Your task to perform on an android device: clear history in the chrome app Image 0: 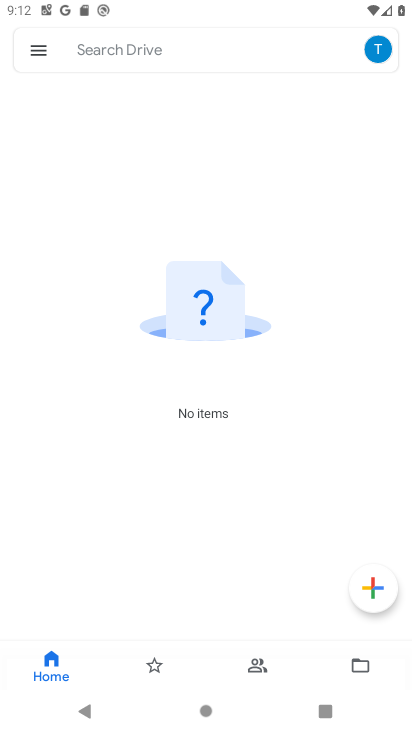
Step 0: press back button
Your task to perform on an android device: clear history in the chrome app Image 1: 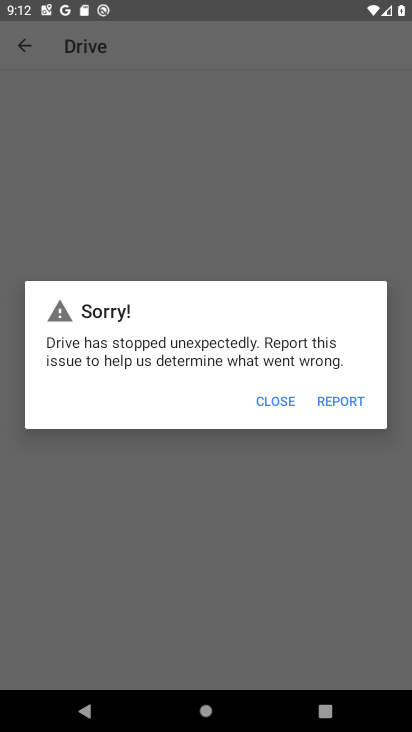
Step 1: click (266, 386)
Your task to perform on an android device: clear history in the chrome app Image 2: 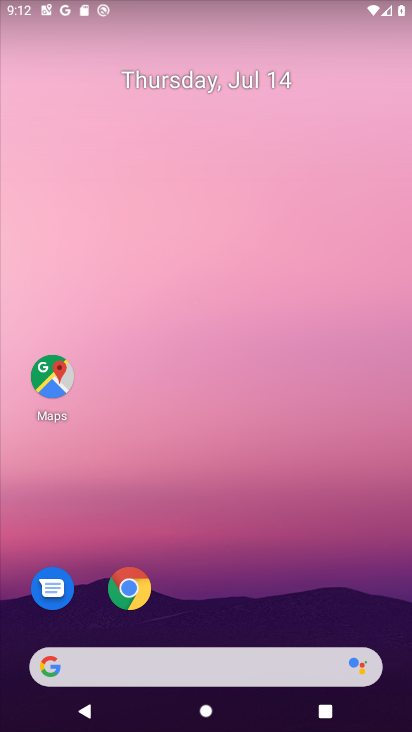
Step 2: drag from (248, 683) to (166, 34)
Your task to perform on an android device: clear history in the chrome app Image 3: 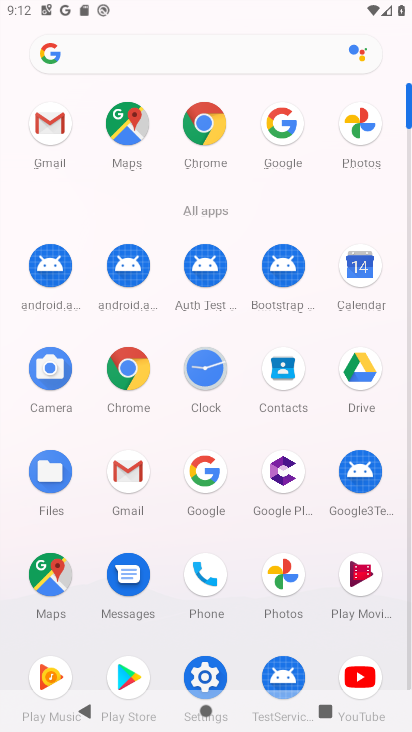
Step 3: click (206, 131)
Your task to perform on an android device: clear history in the chrome app Image 4: 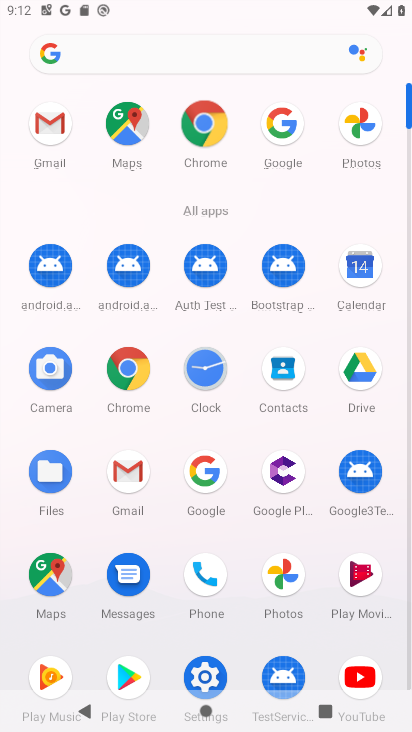
Step 4: click (206, 131)
Your task to perform on an android device: clear history in the chrome app Image 5: 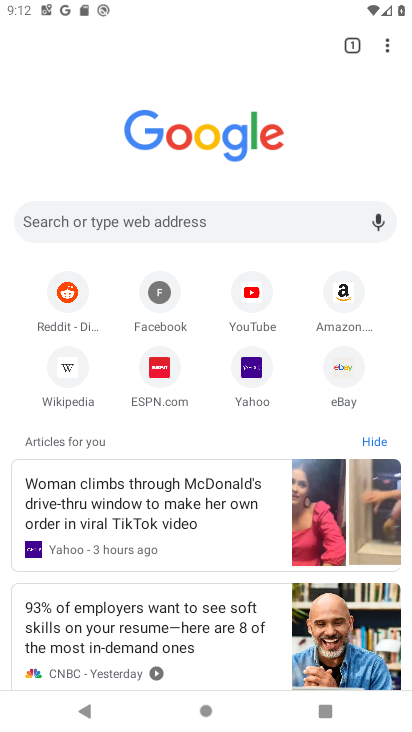
Step 5: drag from (390, 42) to (220, 309)
Your task to perform on an android device: clear history in the chrome app Image 6: 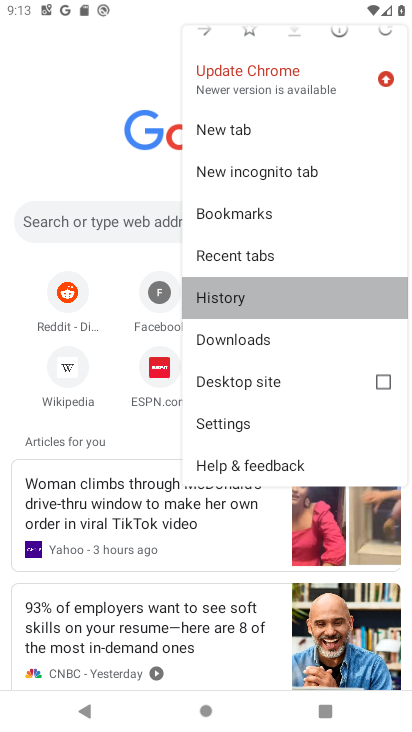
Step 6: click (220, 309)
Your task to perform on an android device: clear history in the chrome app Image 7: 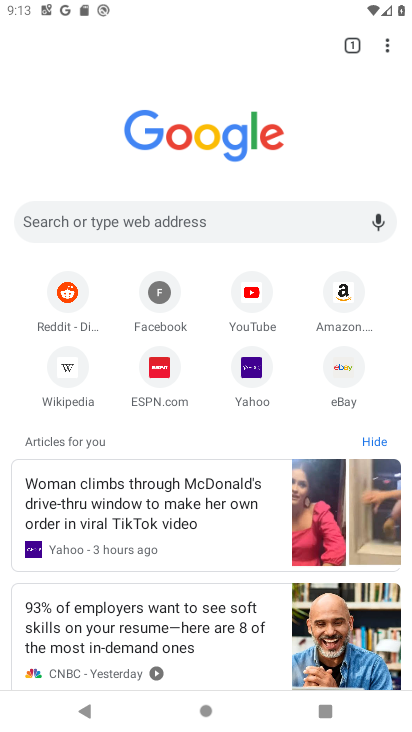
Step 7: click (220, 309)
Your task to perform on an android device: clear history in the chrome app Image 8: 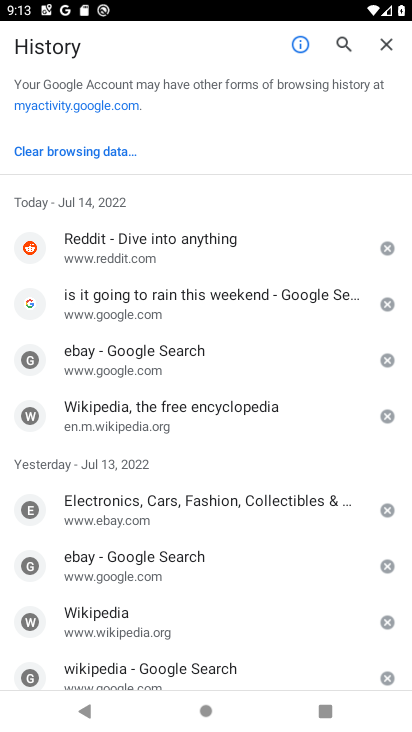
Step 8: task complete